Your task to perform on an android device: Open Yahoo.com Image 0: 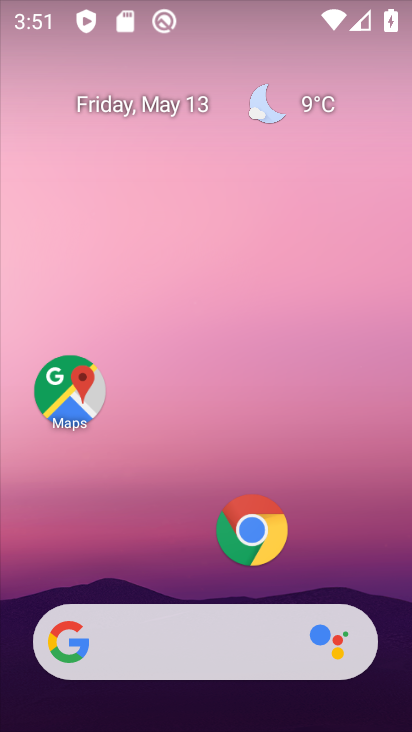
Step 0: drag from (196, 568) to (200, 77)
Your task to perform on an android device: Open Yahoo.com Image 1: 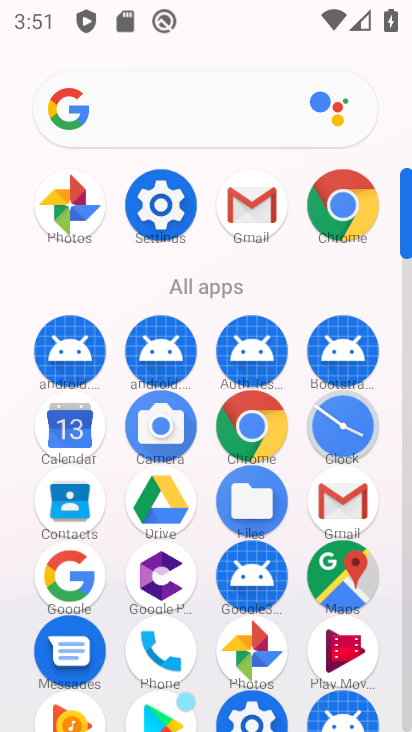
Step 1: click (339, 201)
Your task to perform on an android device: Open Yahoo.com Image 2: 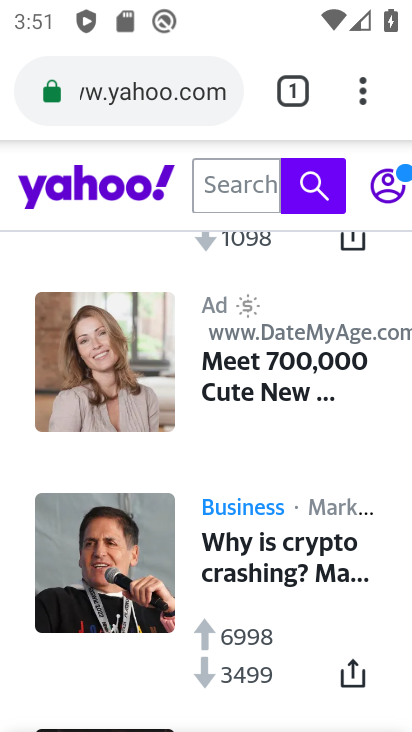
Step 2: task complete